Your task to perform on an android device: Go to Reddit.com Image 0: 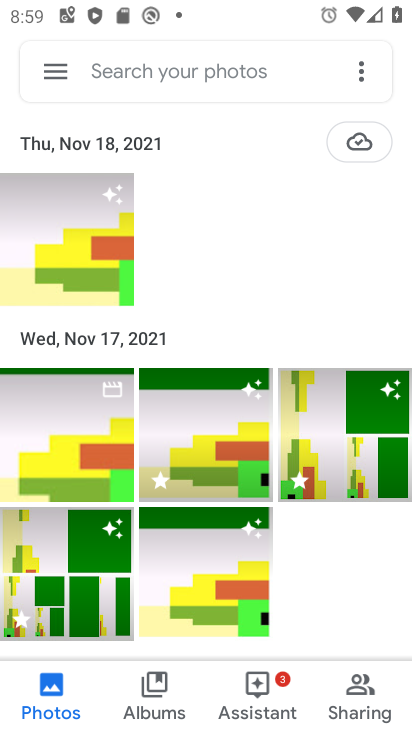
Step 0: press home button
Your task to perform on an android device: Go to Reddit.com Image 1: 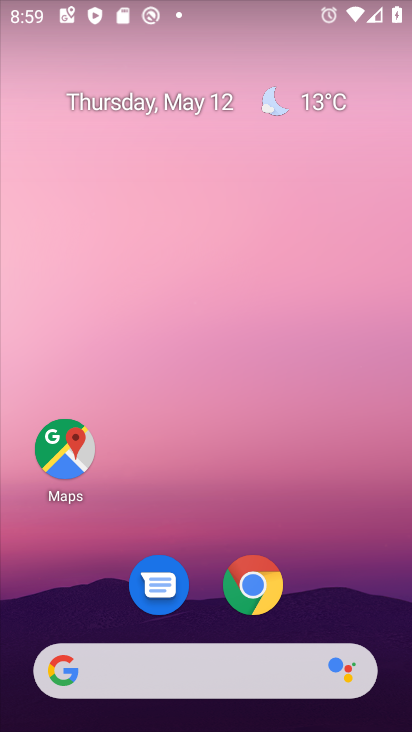
Step 1: click (275, 664)
Your task to perform on an android device: Go to Reddit.com Image 2: 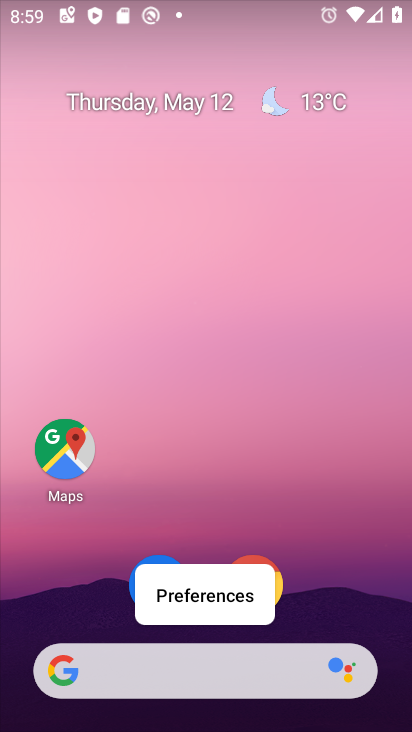
Step 2: click (250, 679)
Your task to perform on an android device: Go to Reddit.com Image 3: 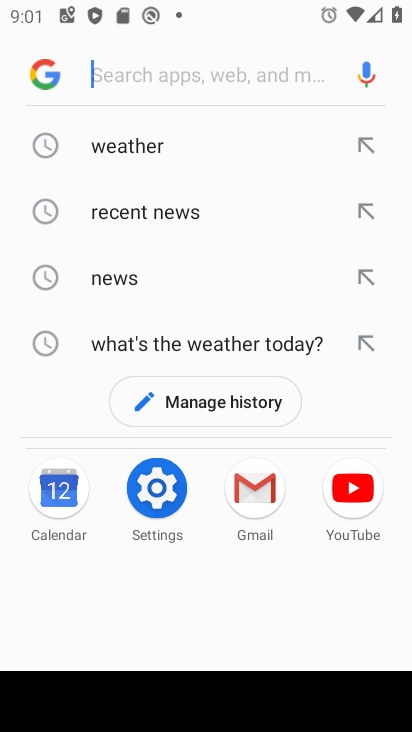
Step 3: type "reddit.com"
Your task to perform on an android device: Go to Reddit.com Image 4: 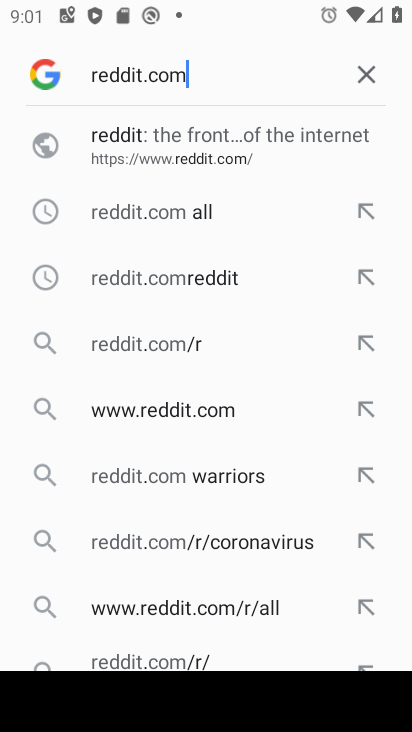
Step 4: click (105, 141)
Your task to perform on an android device: Go to Reddit.com Image 5: 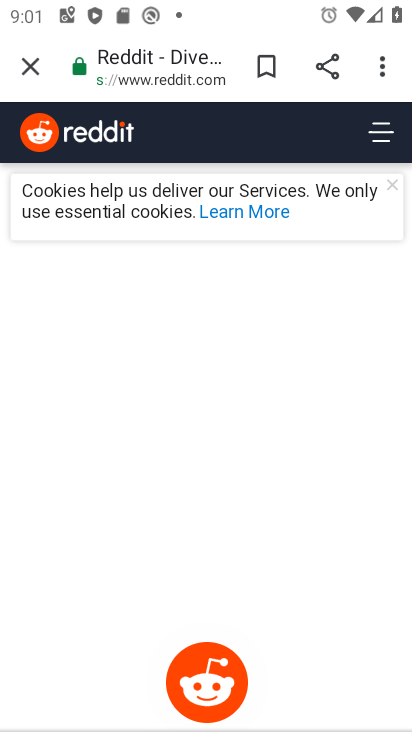
Step 5: task complete